Your task to perform on an android device: open app "McDonald's" (install if not already installed), go to login, and select forgot password Image 0: 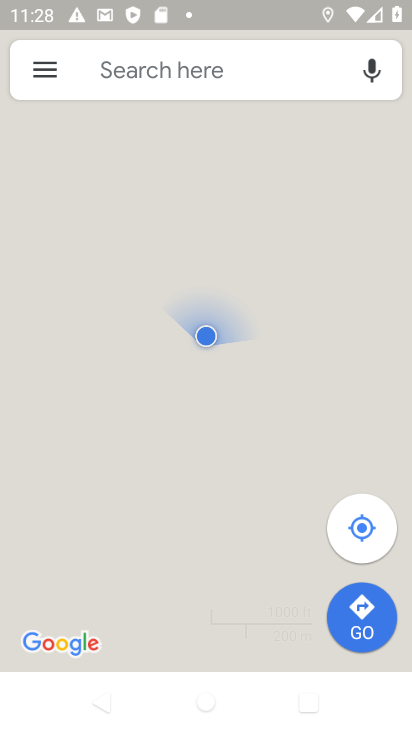
Step 0: press home button
Your task to perform on an android device: open app "McDonald's" (install if not already installed), go to login, and select forgot password Image 1: 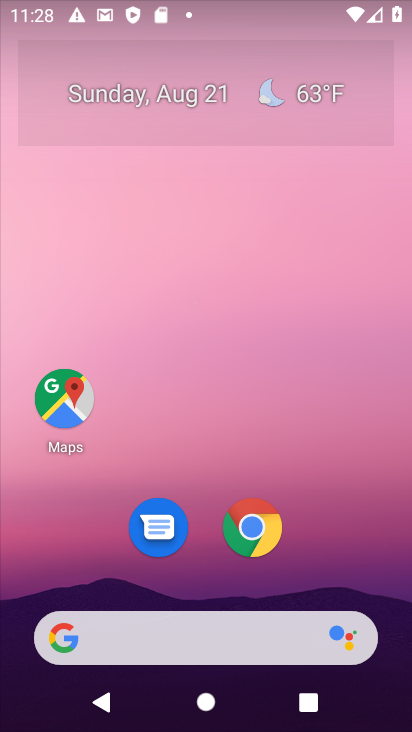
Step 1: drag from (212, 604) to (199, 49)
Your task to perform on an android device: open app "McDonald's" (install if not already installed), go to login, and select forgot password Image 2: 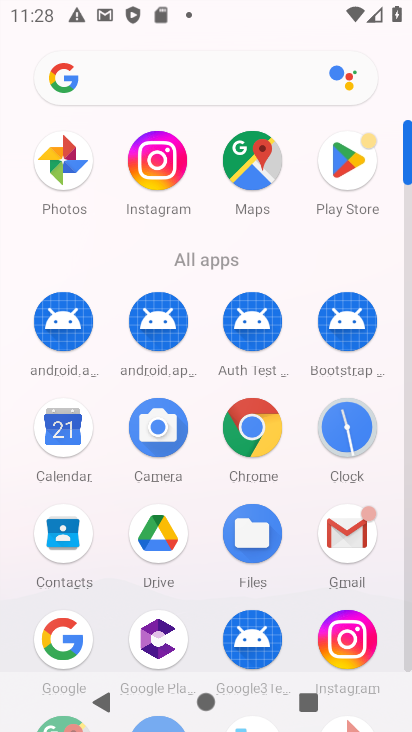
Step 2: click (336, 172)
Your task to perform on an android device: open app "McDonald's" (install if not already installed), go to login, and select forgot password Image 3: 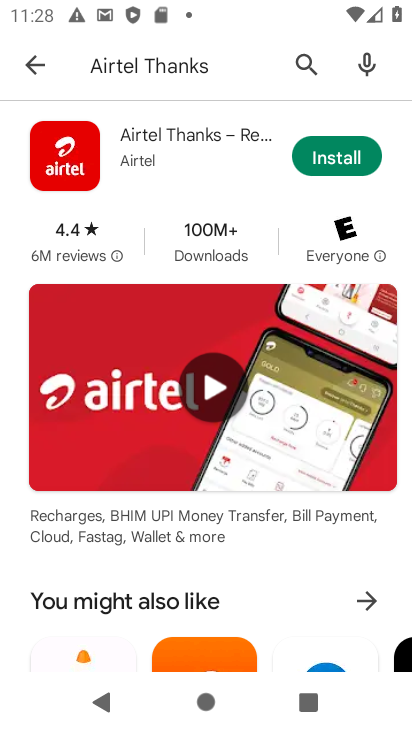
Step 3: press back button
Your task to perform on an android device: open app "McDonald's" (install if not already installed), go to login, and select forgot password Image 4: 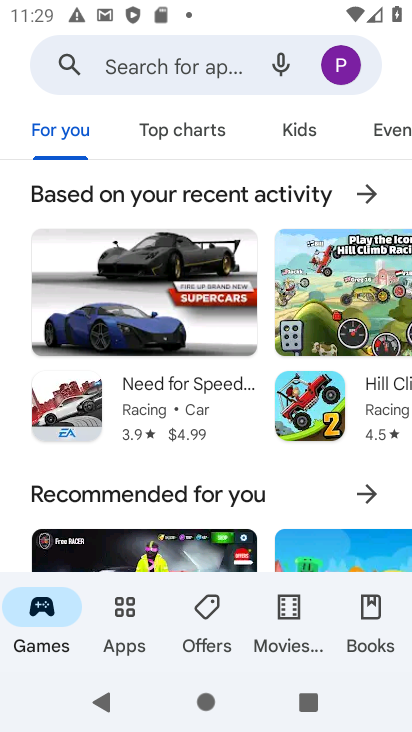
Step 4: click (198, 78)
Your task to perform on an android device: open app "McDonald's" (install if not already installed), go to login, and select forgot password Image 5: 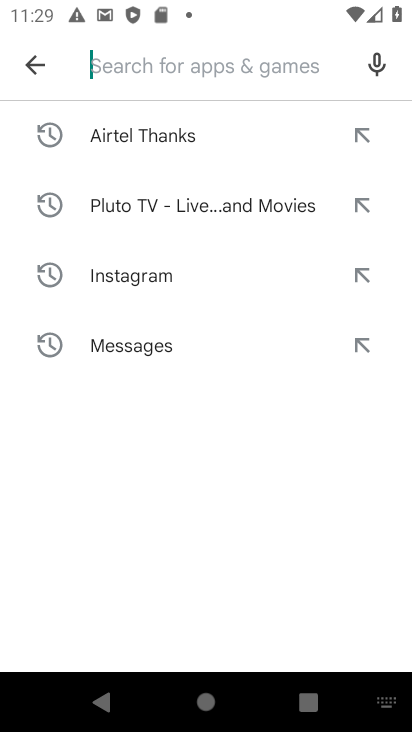
Step 5: type "McDonald's"
Your task to perform on an android device: open app "McDonald's" (install if not already installed), go to login, and select forgot password Image 6: 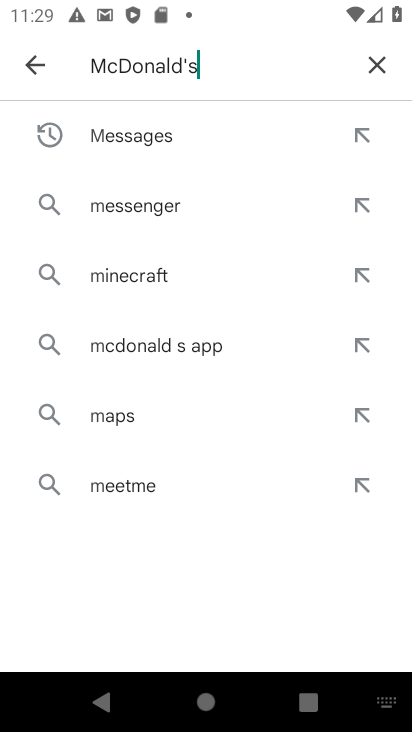
Step 6: press enter
Your task to perform on an android device: open app "McDonald's" (install if not already installed), go to login, and select forgot password Image 7: 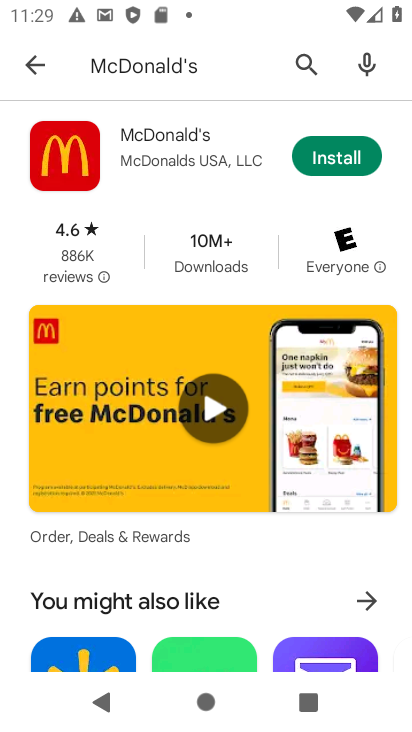
Step 7: click (342, 151)
Your task to perform on an android device: open app "McDonald's" (install if not already installed), go to login, and select forgot password Image 8: 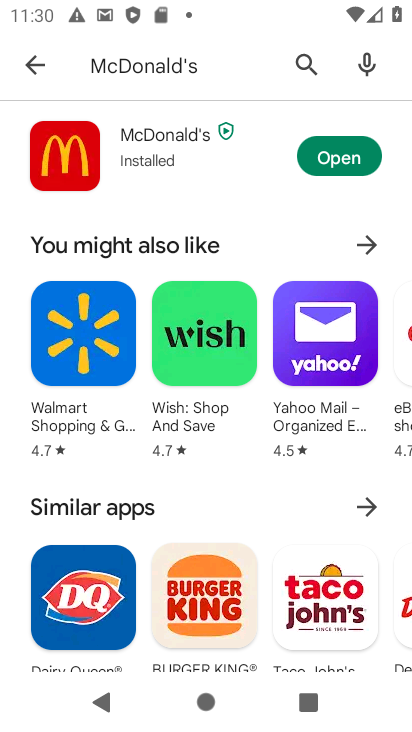
Step 8: click (323, 160)
Your task to perform on an android device: open app "McDonald's" (install if not already installed), go to login, and select forgot password Image 9: 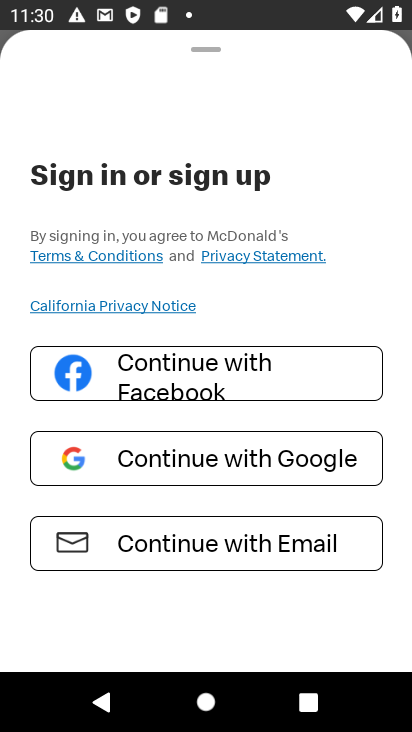
Step 9: click (292, 542)
Your task to perform on an android device: open app "McDonald's" (install if not already installed), go to login, and select forgot password Image 10: 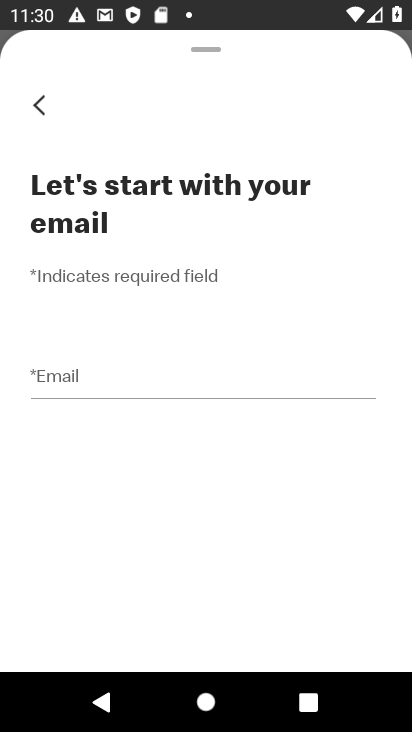
Step 10: click (52, 105)
Your task to perform on an android device: open app "McDonald's" (install if not already installed), go to login, and select forgot password Image 11: 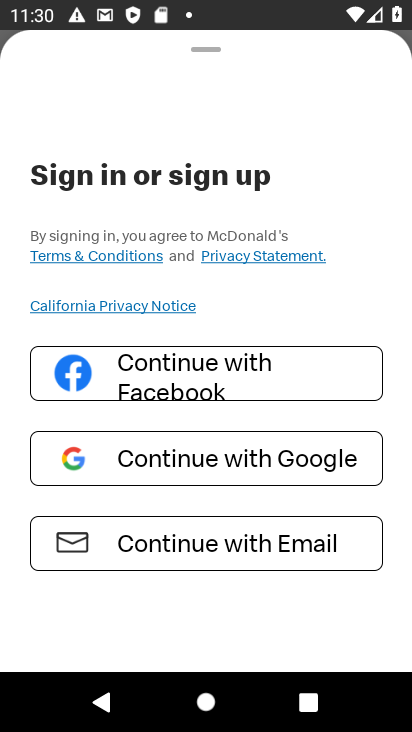
Step 11: click (199, 383)
Your task to perform on an android device: open app "McDonald's" (install if not already installed), go to login, and select forgot password Image 12: 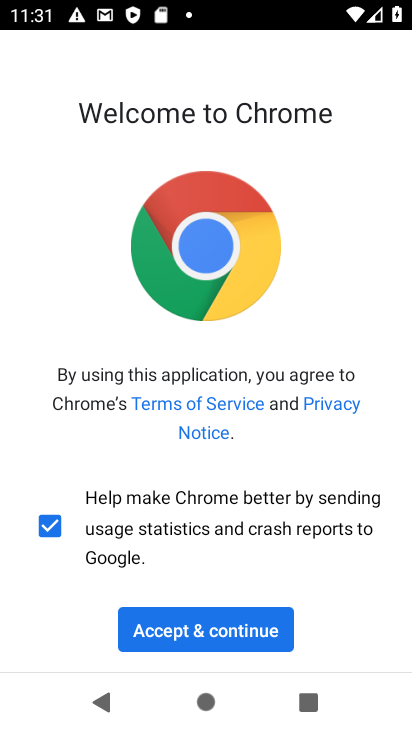
Step 12: click (196, 631)
Your task to perform on an android device: open app "McDonald's" (install if not already installed), go to login, and select forgot password Image 13: 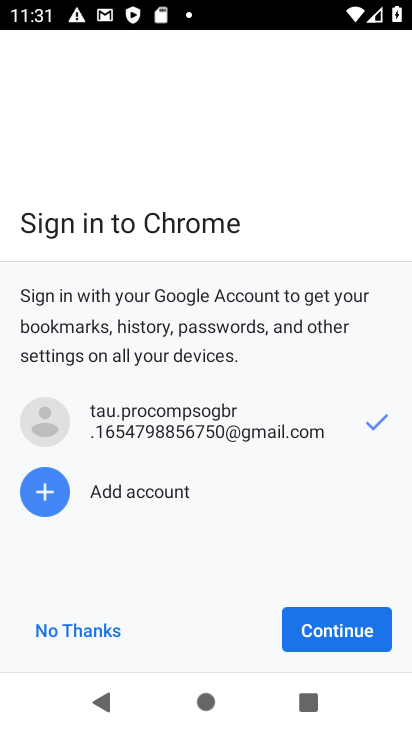
Step 13: click (62, 618)
Your task to perform on an android device: open app "McDonald's" (install if not already installed), go to login, and select forgot password Image 14: 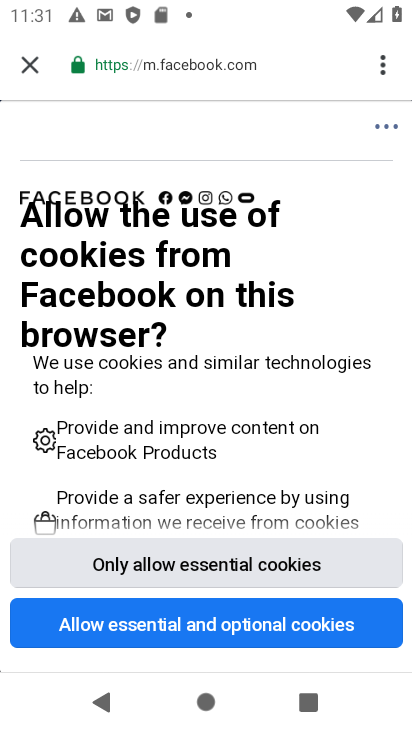
Step 14: drag from (167, 584) to (190, 154)
Your task to perform on an android device: open app "McDonald's" (install if not already installed), go to login, and select forgot password Image 15: 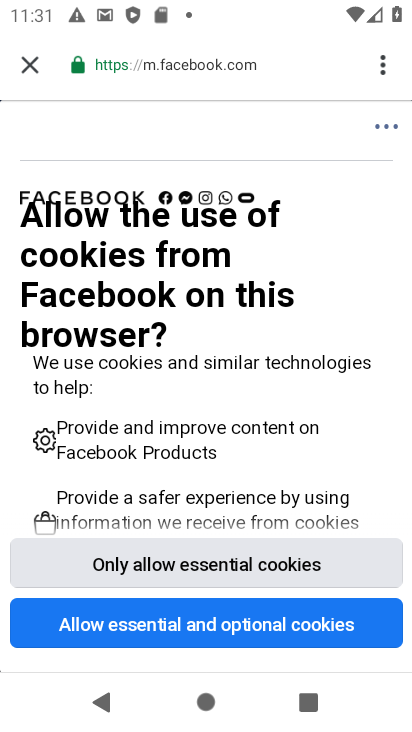
Step 15: drag from (203, 513) to (232, 167)
Your task to perform on an android device: open app "McDonald's" (install if not already installed), go to login, and select forgot password Image 16: 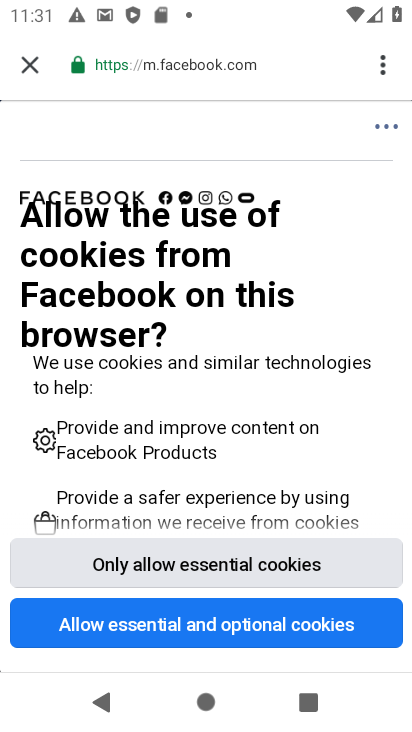
Step 16: click (206, 620)
Your task to perform on an android device: open app "McDonald's" (install if not already installed), go to login, and select forgot password Image 17: 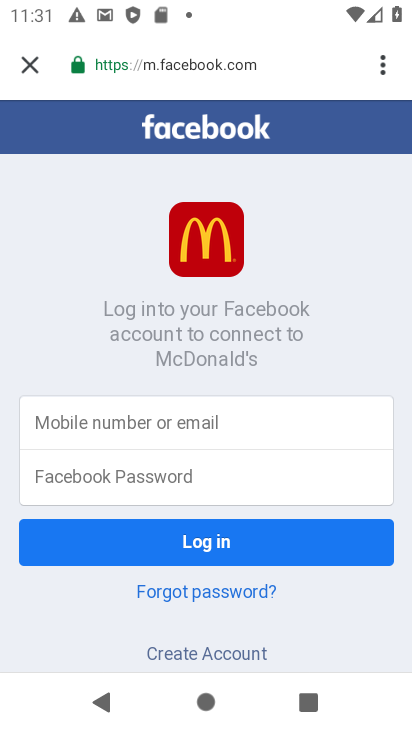
Step 17: click (215, 593)
Your task to perform on an android device: open app "McDonald's" (install if not already installed), go to login, and select forgot password Image 18: 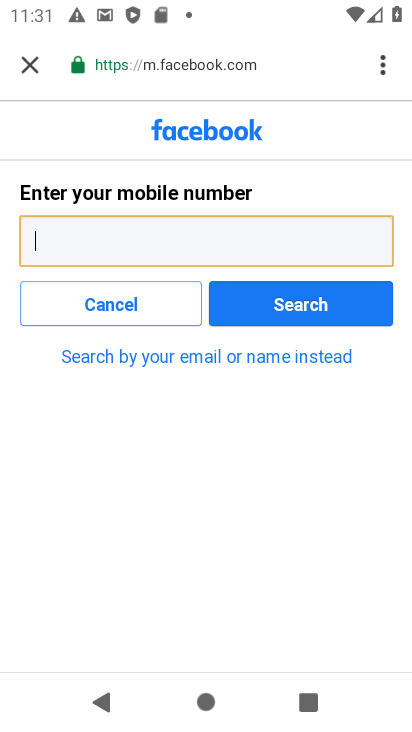
Step 18: task complete